Your task to perform on an android device: Open Reddit.com Image 0: 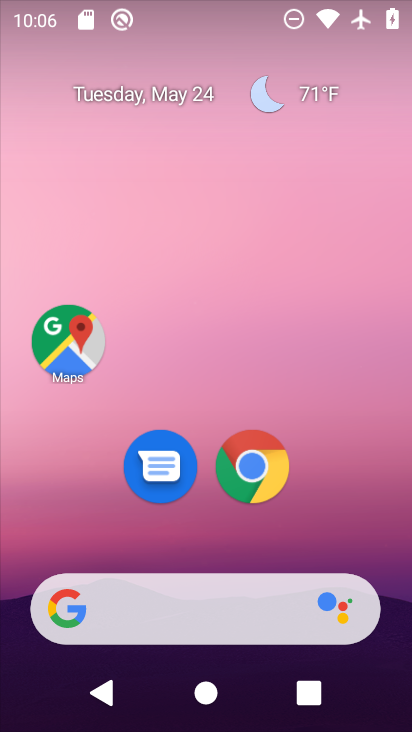
Step 0: click (255, 455)
Your task to perform on an android device: Open Reddit.com Image 1: 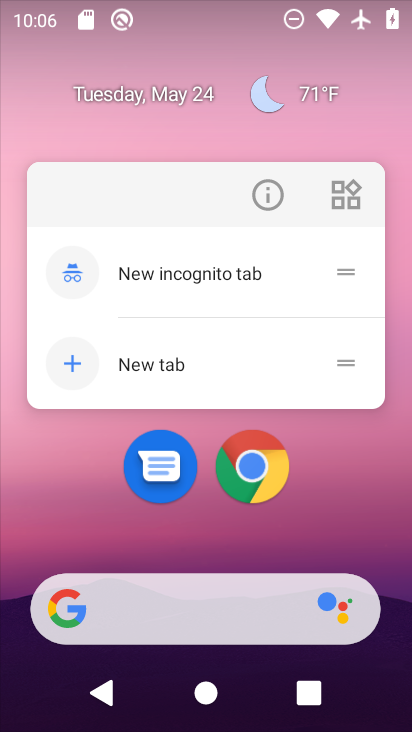
Step 1: click (255, 457)
Your task to perform on an android device: Open Reddit.com Image 2: 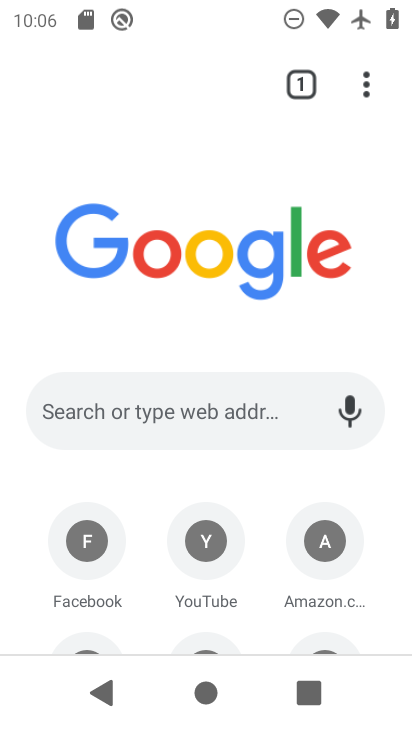
Step 2: click (250, 426)
Your task to perform on an android device: Open Reddit.com Image 3: 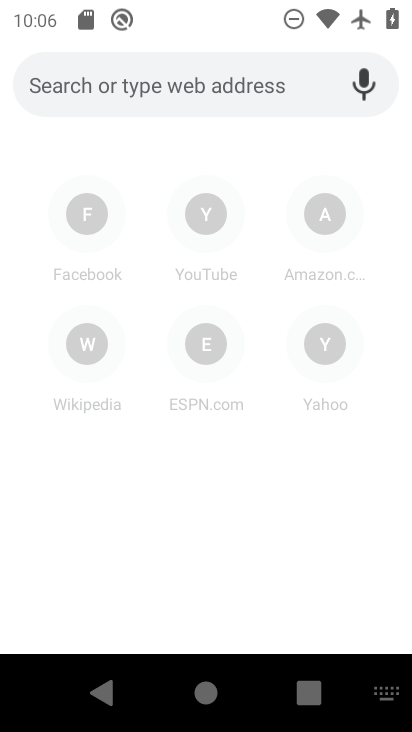
Step 3: type "Reddit.com"
Your task to perform on an android device: Open Reddit.com Image 4: 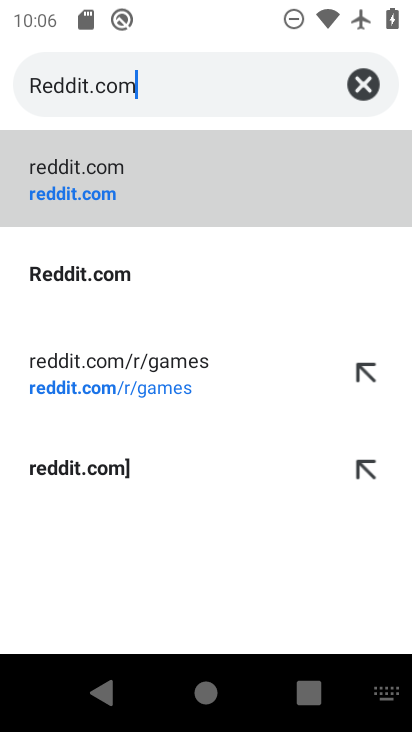
Step 4: click (150, 171)
Your task to perform on an android device: Open Reddit.com Image 5: 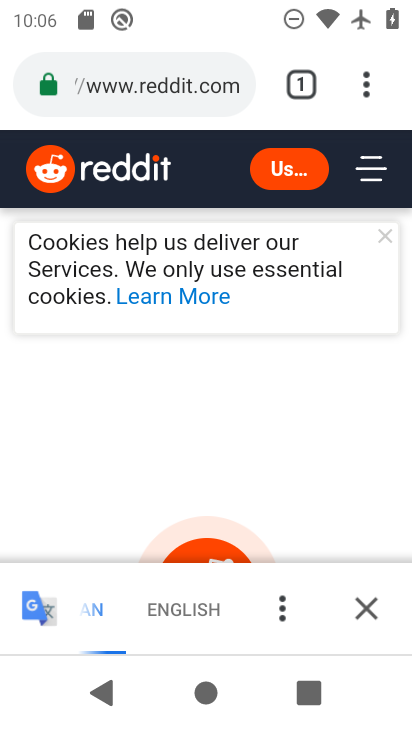
Step 5: click (389, 231)
Your task to perform on an android device: Open Reddit.com Image 6: 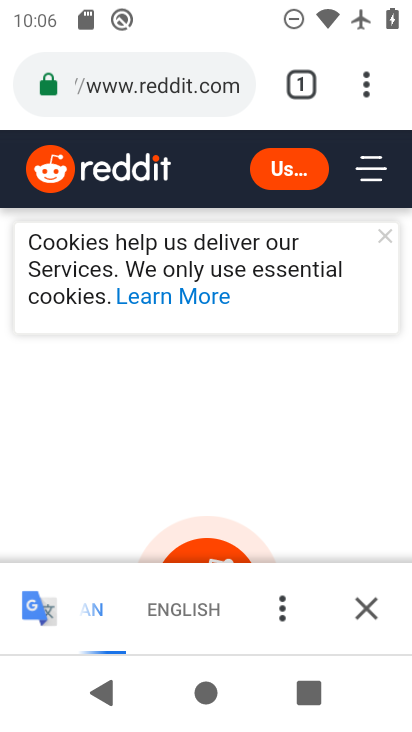
Step 6: task complete